Your task to perform on an android device: Open the calendar app, open the side menu, and click the "Day" option Image 0: 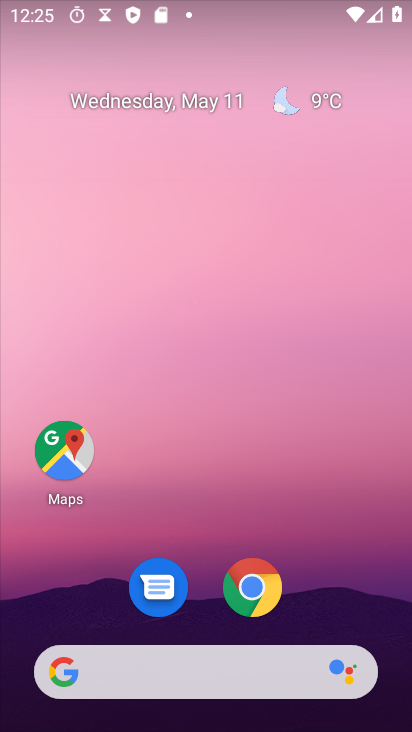
Step 0: drag from (370, 622) to (169, 143)
Your task to perform on an android device: Open the calendar app, open the side menu, and click the "Day" option Image 1: 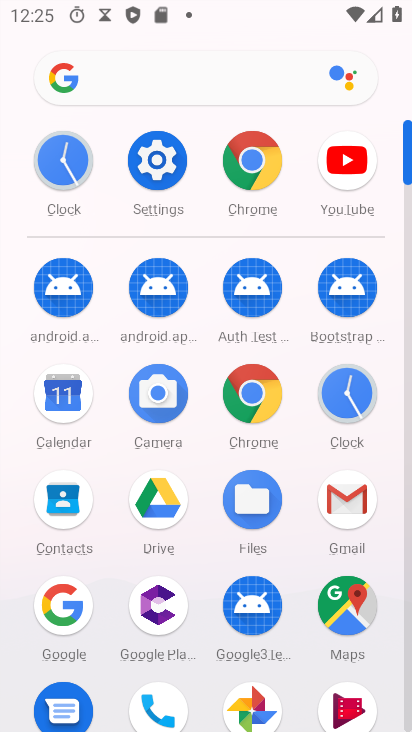
Step 1: click (56, 397)
Your task to perform on an android device: Open the calendar app, open the side menu, and click the "Day" option Image 2: 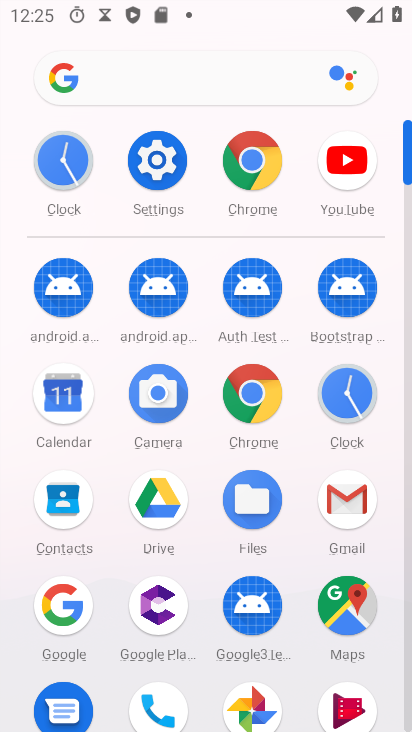
Step 2: click (57, 397)
Your task to perform on an android device: Open the calendar app, open the side menu, and click the "Day" option Image 3: 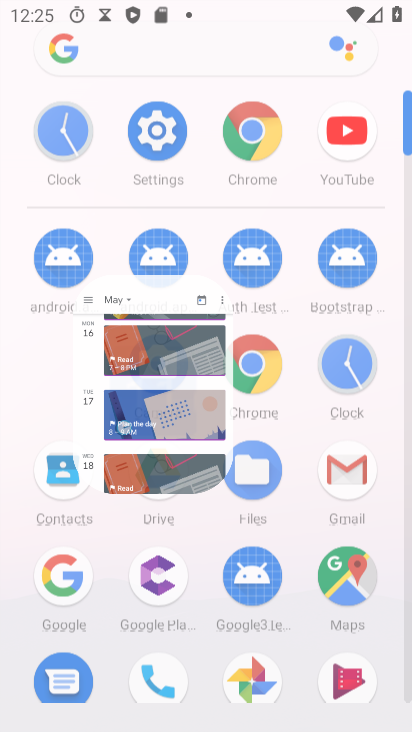
Step 3: click (58, 398)
Your task to perform on an android device: Open the calendar app, open the side menu, and click the "Day" option Image 4: 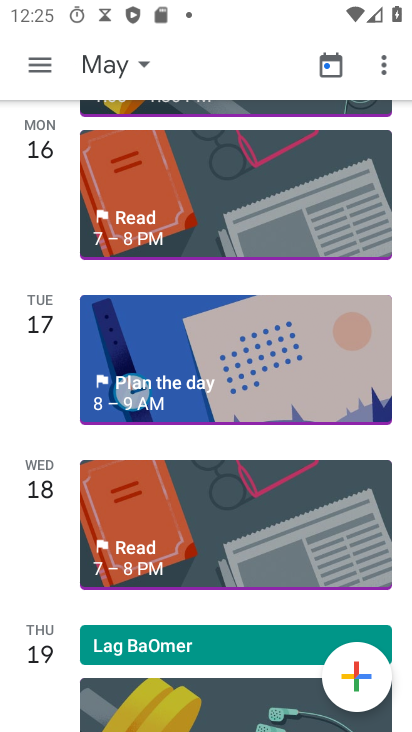
Step 4: click (40, 62)
Your task to perform on an android device: Open the calendar app, open the side menu, and click the "Day" option Image 5: 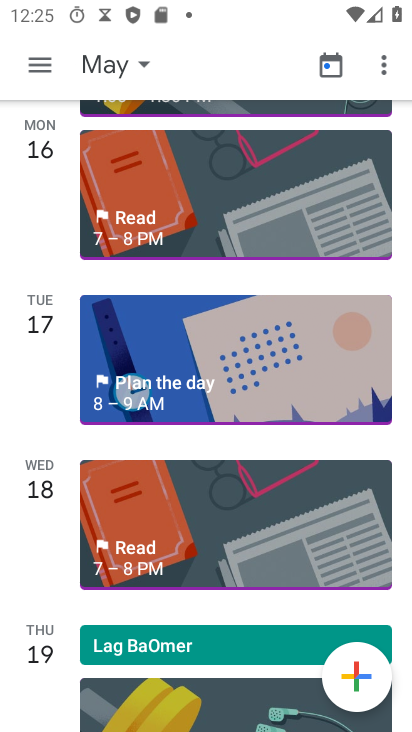
Step 5: click (42, 62)
Your task to perform on an android device: Open the calendar app, open the side menu, and click the "Day" option Image 6: 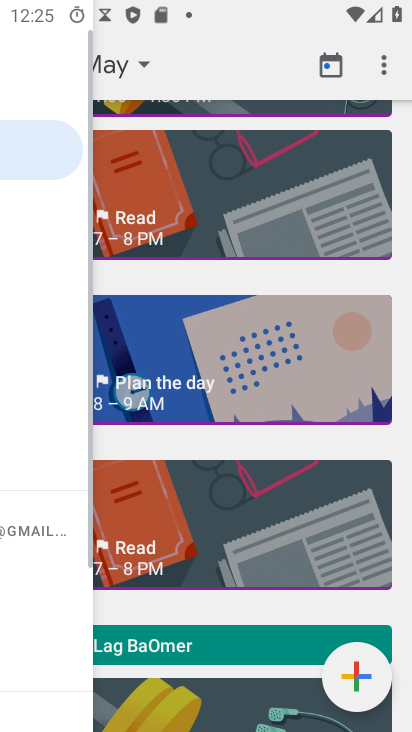
Step 6: click (43, 62)
Your task to perform on an android device: Open the calendar app, open the side menu, and click the "Day" option Image 7: 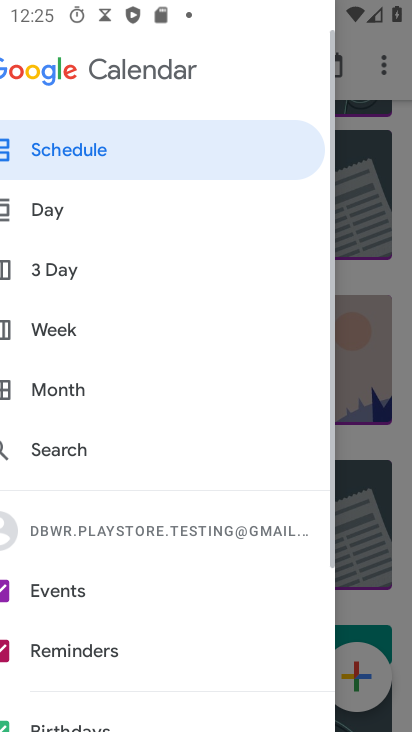
Step 7: click (43, 62)
Your task to perform on an android device: Open the calendar app, open the side menu, and click the "Day" option Image 8: 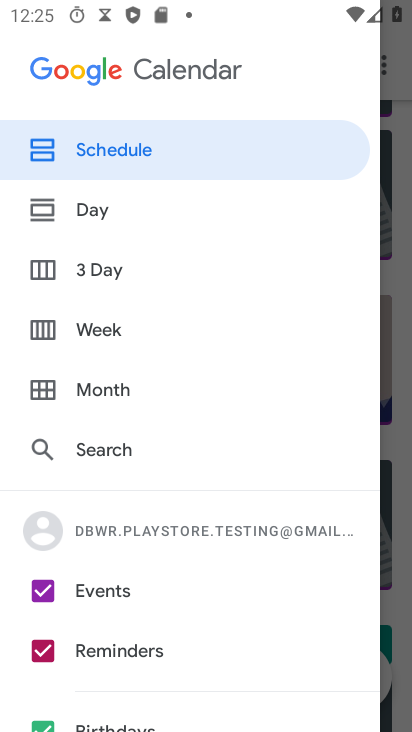
Step 8: click (97, 213)
Your task to perform on an android device: Open the calendar app, open the side menu, and click the "Day" option Image 9: 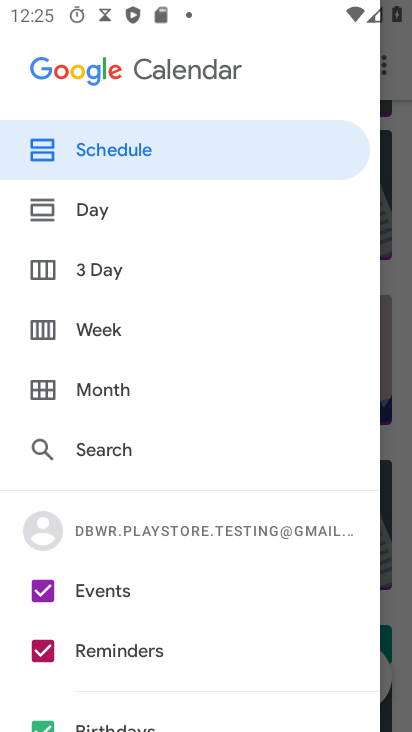
Step 9: click (94, 212)
Your task to perform on an android device: Open the calendar app, open the side menu, and click the "Day" option Image 10: 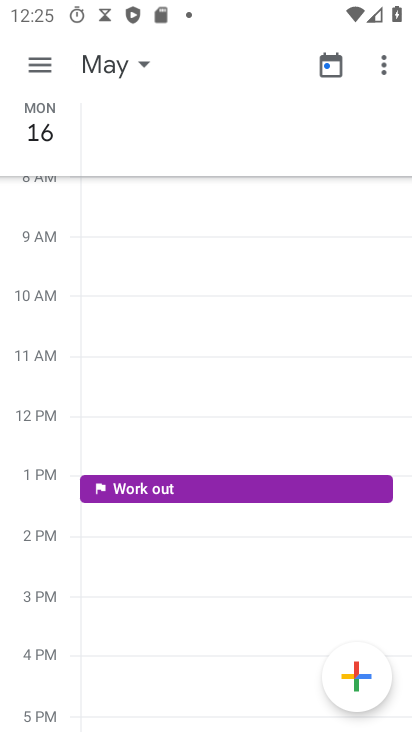
Step 10: task complete